Your task to perform on an android device: turn off improve location accuracy Image 0: 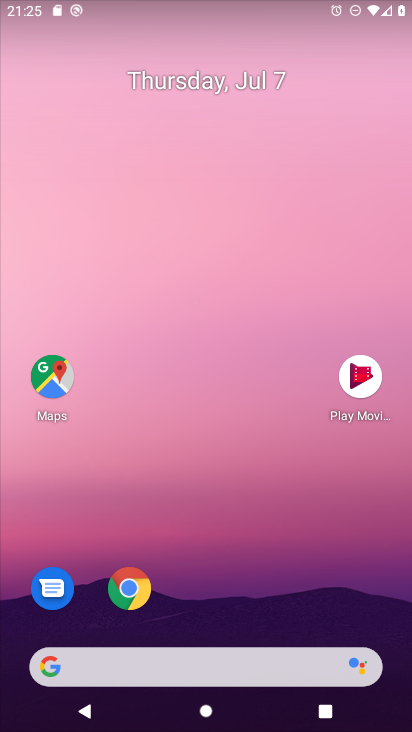
Step 0: drag from (257, 586) to (255, 309)
Your task to perform on an android device: turn off improve location accuracy Image 1: 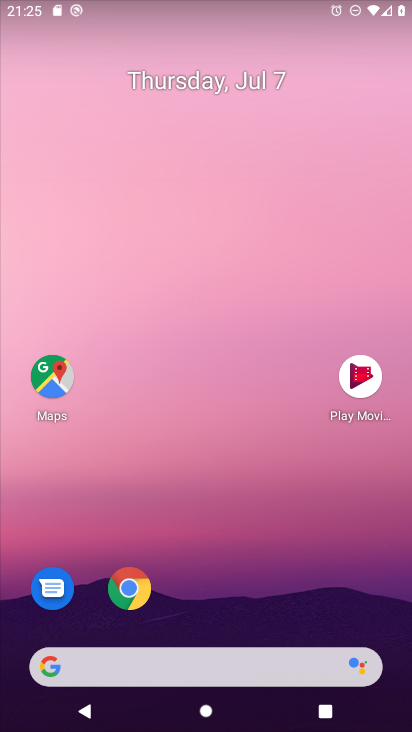
Step 1: drag from (229, 629) to (240, 195)
Your task to perform on an android device: turn off improve location accuracy Image 2: 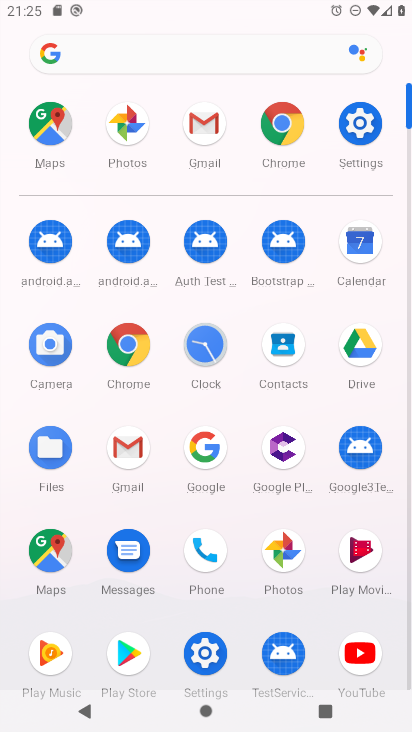
Step 2: click (356, 113)
Your task to perform on an android device: turn off improve location accuracy Image 3: 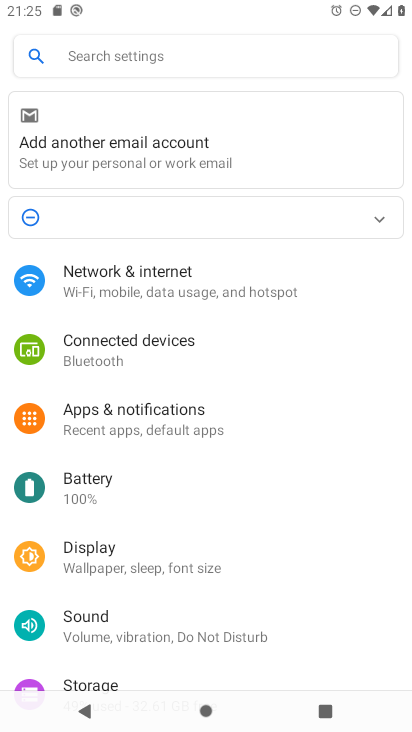
Step 3: drag from (129, 626) to (178, 304)
Your task to perform on an android device: turn off improve location accuracy Image 4: 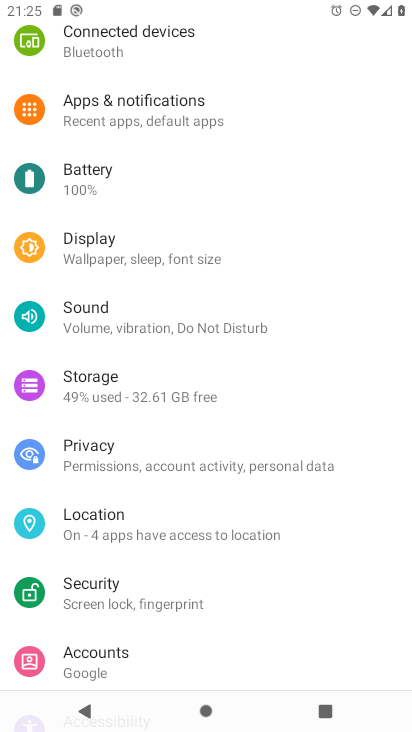
Step 4: click (137, 525)
Your task to perform on an android device: turn off improve location accuracy Image 5: 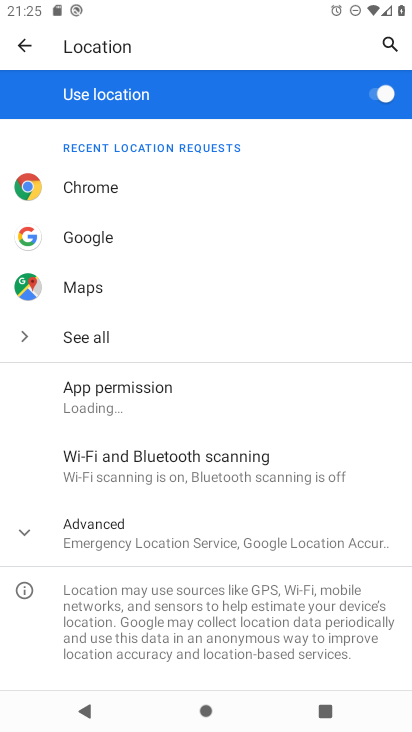
Step 5: click (151, 524)
Your task to perform on an android device: turn off improve location accuracy Image 6: 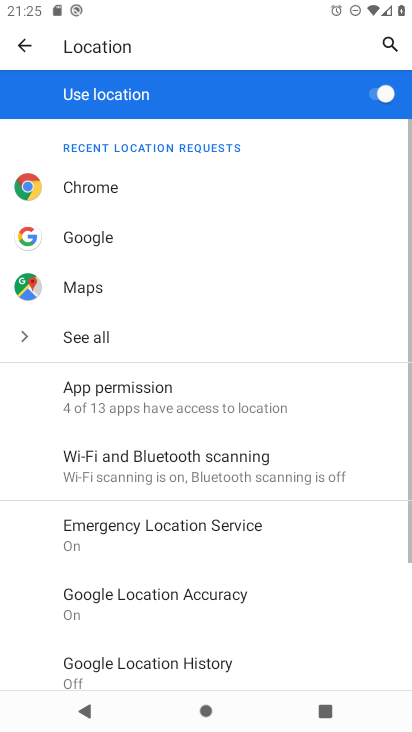
Step 6: click (164, 611)
Your task to perform on an android device: turn off improve location accuracy Image 7: 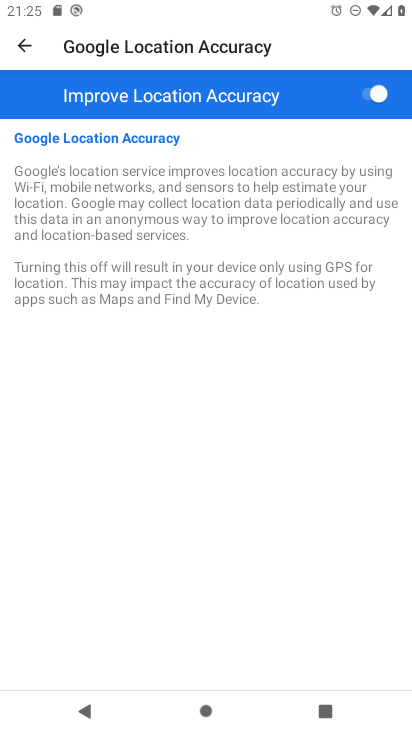
Step 7: click (368, 78)
Your task to perform on an android device: turn off improve location accuracy Image 8: 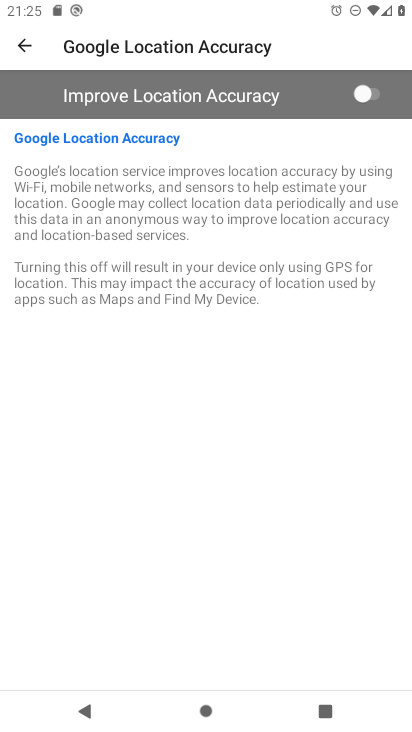
Step 8: task complete